Your task to perform on an android device: Toggle the flashlight Image 0: 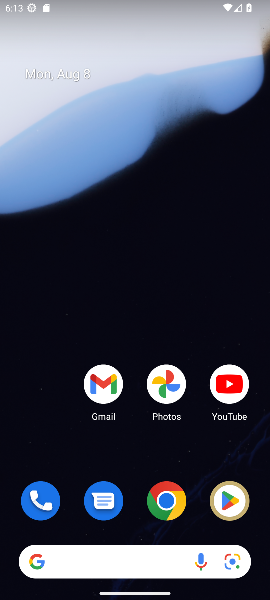
Step 0: drag from (135, 449) to (89, 30)
Your task to perform on an android device: Toggle the flashlight Image 1: 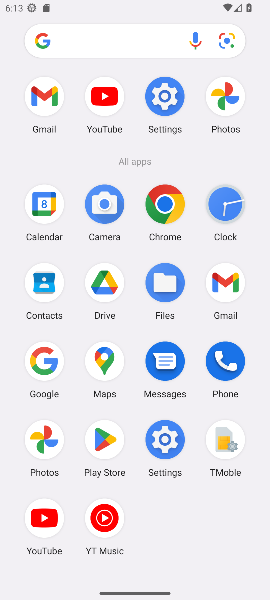
Step 1: click (162, 101)
Your task to perform on an android device: Toggle the flashlight Image 2: 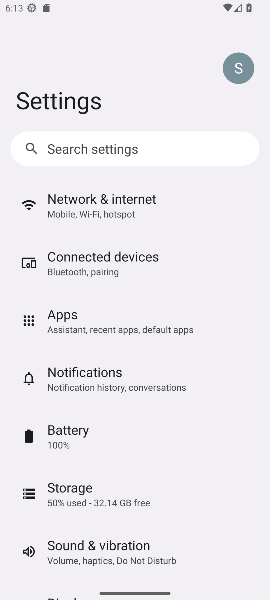
Step 2: task complete